Your task to perform on an android device: Open display settings Image 0: 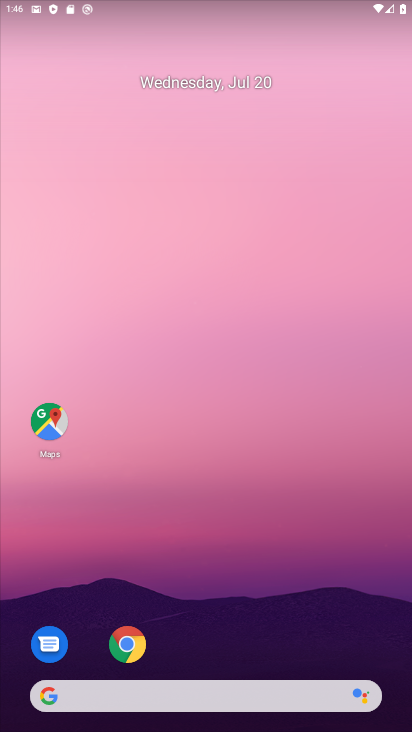
Step 0: drag from (279, 427) to (282, 57)
Your task to perform on an android device: Open display settings Image 1: 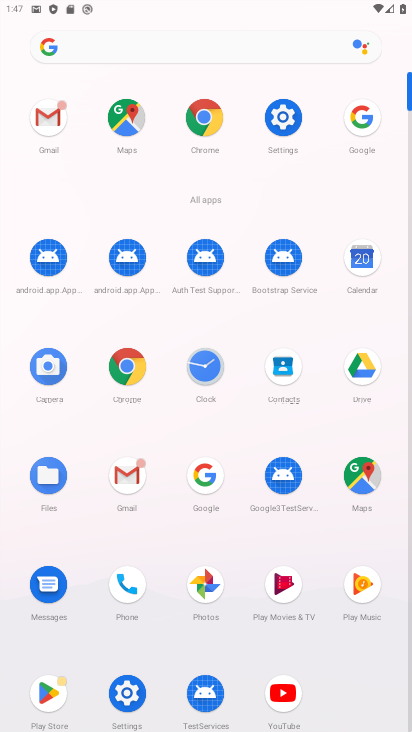
Step 1: click (133, 686)
Your task to perform on an android device: Open display settings Image 2: 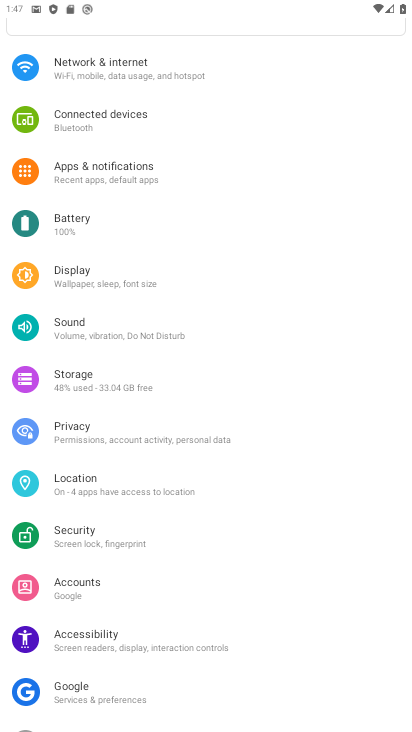
Step 2: click (191, 287)
Your task to perform on an android device: Open display settings Image 3: 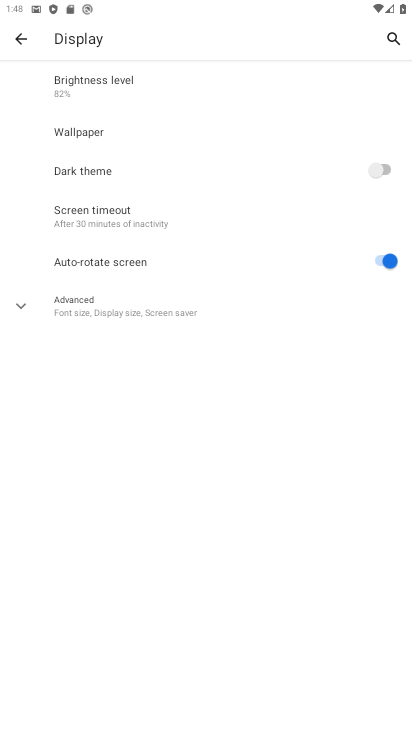
Step 3: task complete